Your task to perform on an android device: turn notification dots off Image 0: 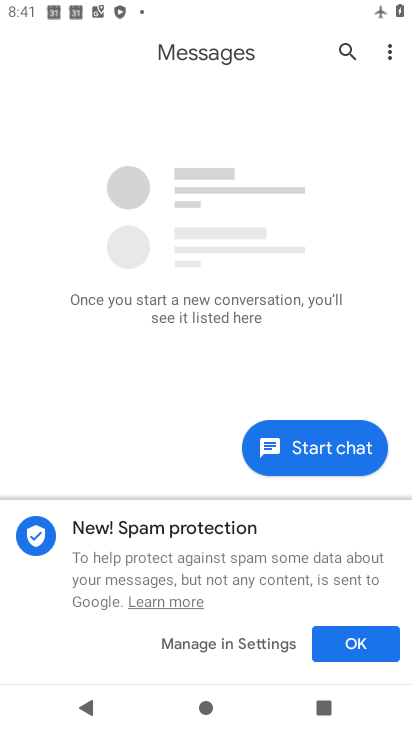
Step 0: drag from (242, 570) to (299, 8)
Your task to perform on an android device: turn notification dots off Image 1: 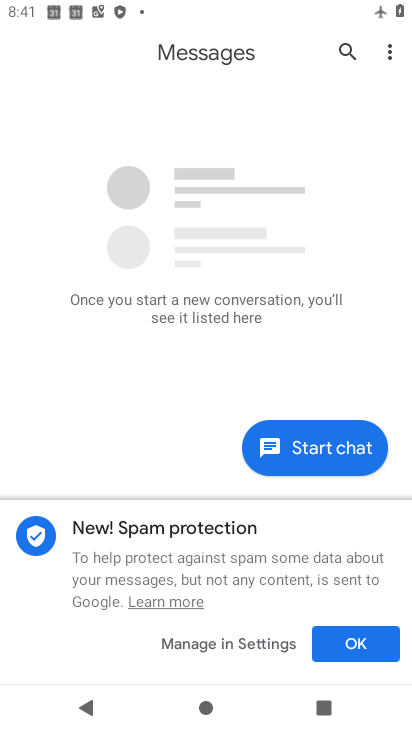
Step 1: press home button
Your task to perform on an android device: turn notification dots off Image 2: 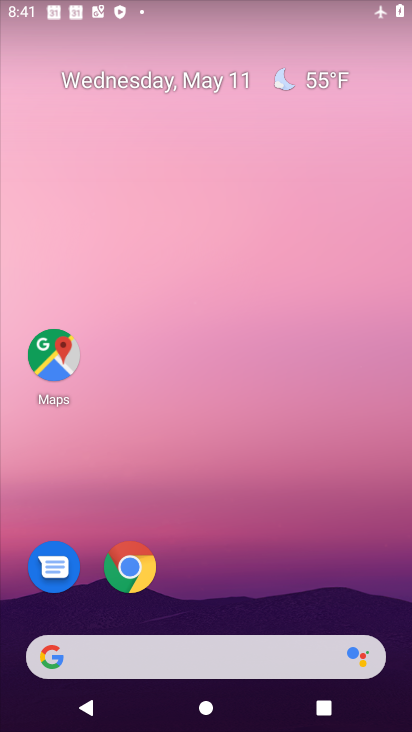
Step 2: drag from (227, 523) to (289, 9)
Your task to perform on an android device: turn notification dots off Image 3: 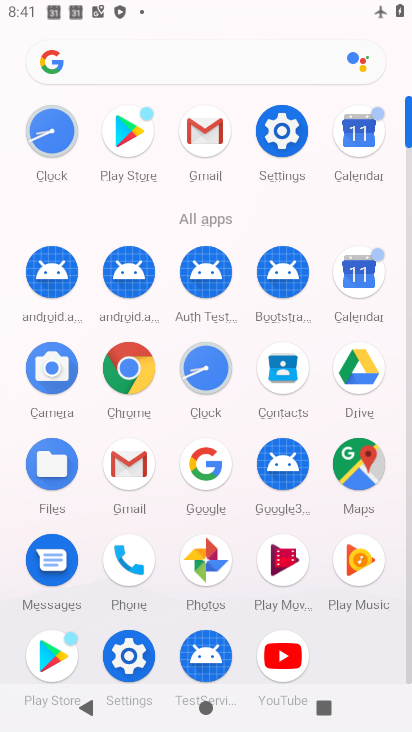
Step 3: click (276, 154)
Your task to perform on an android device: turn notification dots off Image 4: 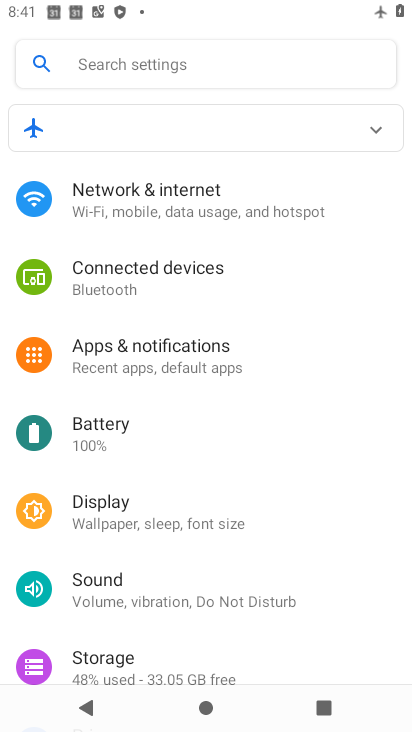
Step 4: click (204, 367)
Your task to perform on an android device: turn notification dots off Image 5: 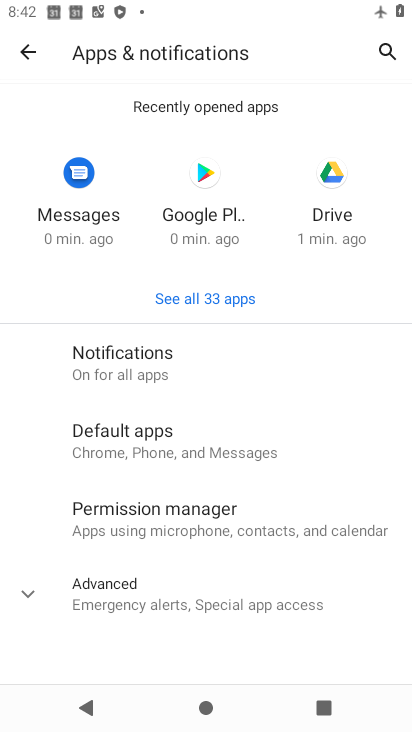
Step 5: click (154, 366)
Your task to perform on an android device: turn notification dots off Image 6: 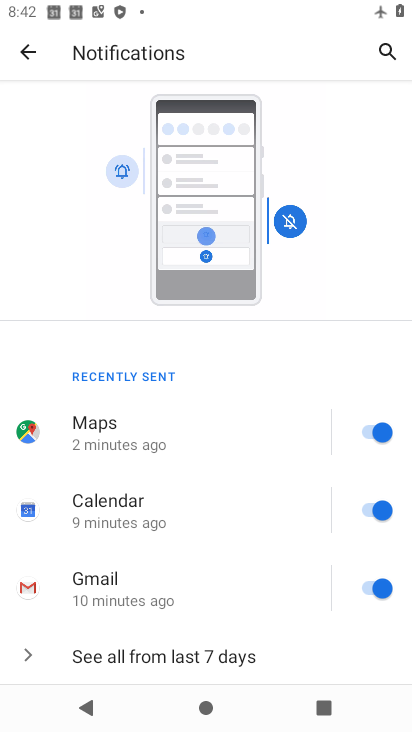
Step 6: drag from (146, 561) to (168, 323)
Your task to perform on an android device: turn notification dots off Image 7: 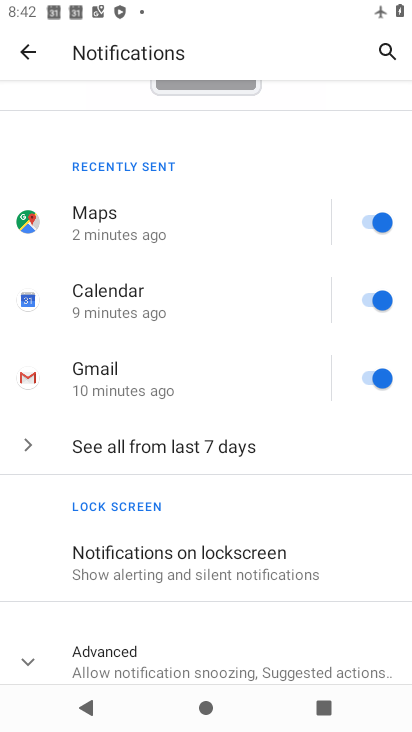
Step 7: drag from (171, 597) to (251, 280)
Your task to perform on an android device: turn notification dots off Image 8: 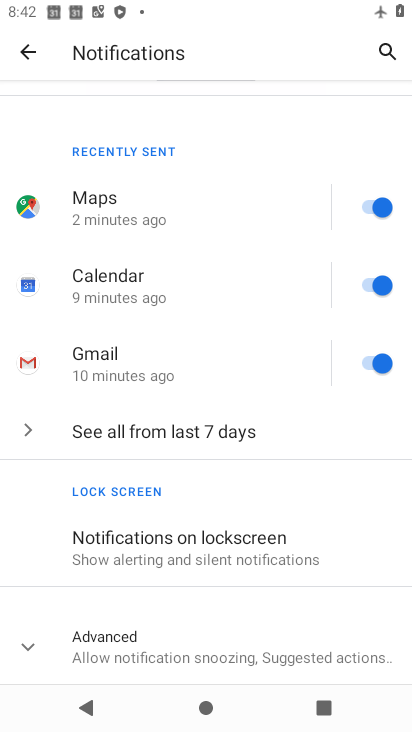
Step 8: click (96, 643)
Your task to perform on an android device: turn notification dots off Image 9: 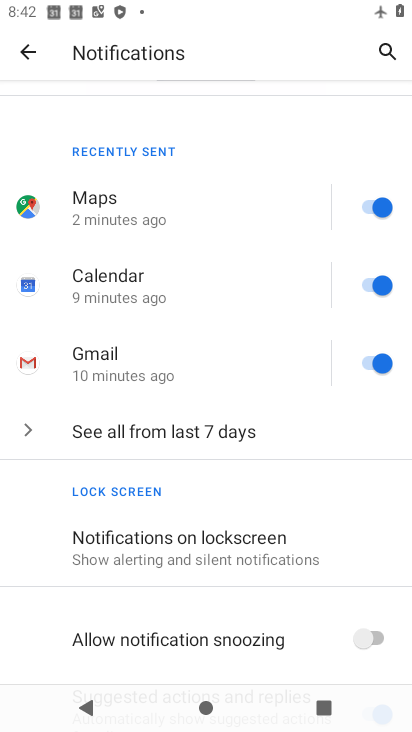
Step 9: drag from (199, 626) to (273, 261)
Your task to perform on an android device: turn notification dots off Image 10: 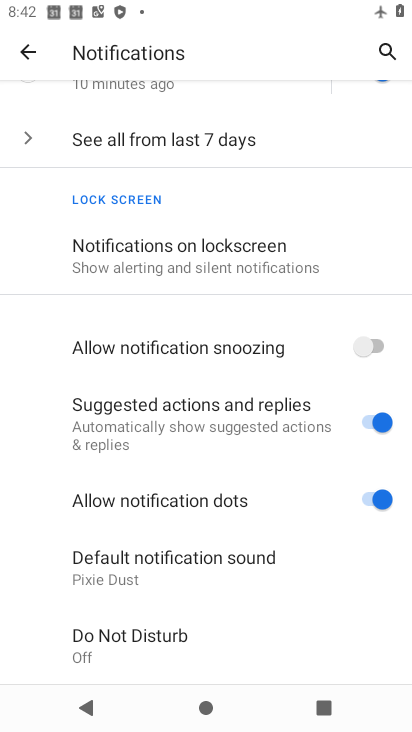
Step 10: click (363, 509)
Your task to perform on an android device: turn notification dots off Image 11: 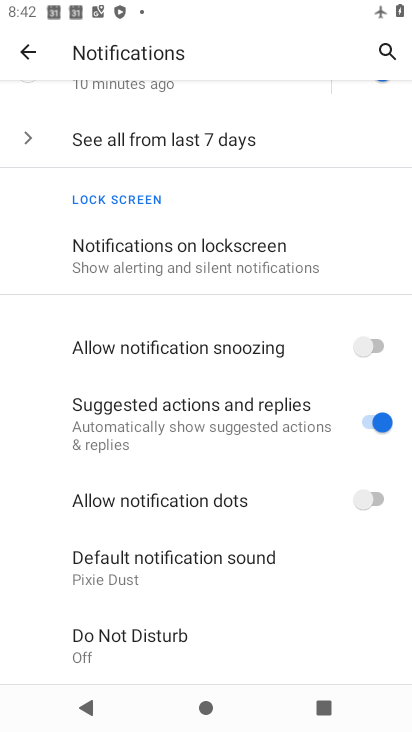
Step 11: task complete